Your task to perform on an android device: Open Google Image 0: 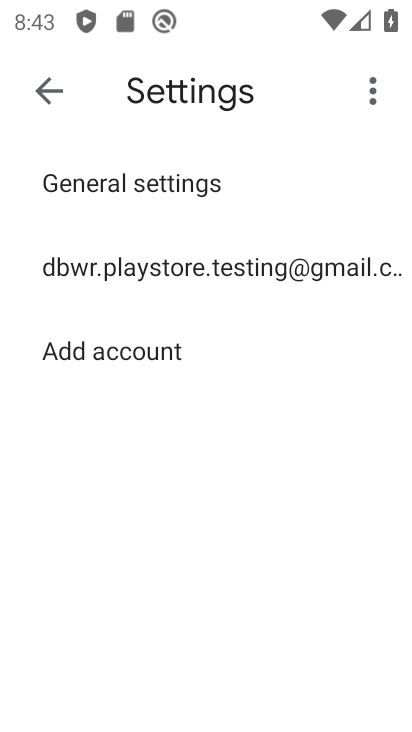
Step 0: press back button
Your task to perform on an android device: Open Google Image 1: 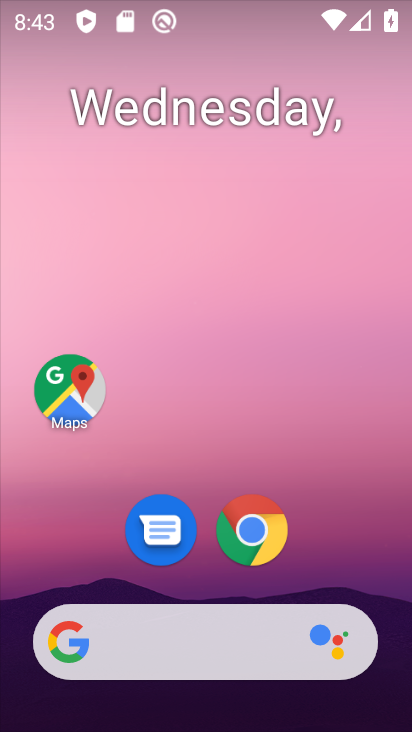
Step 1: drag from (342, 539) to (276, 160)
Your task to perform on an android device: Open Google Image 2: 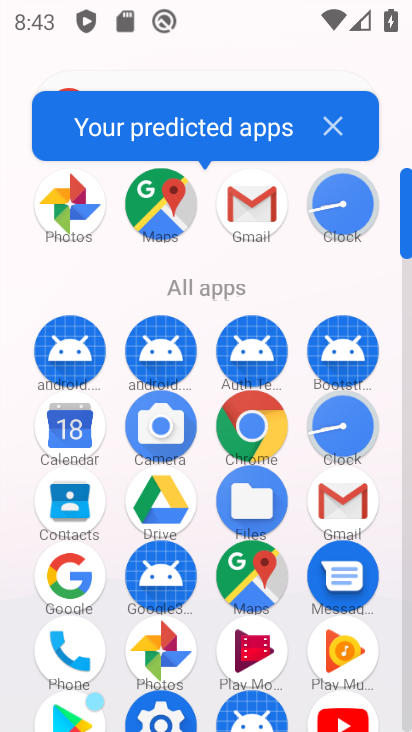
Step 2: click (65, 574)
Your task to perform on an android device: Open Google Image 3: 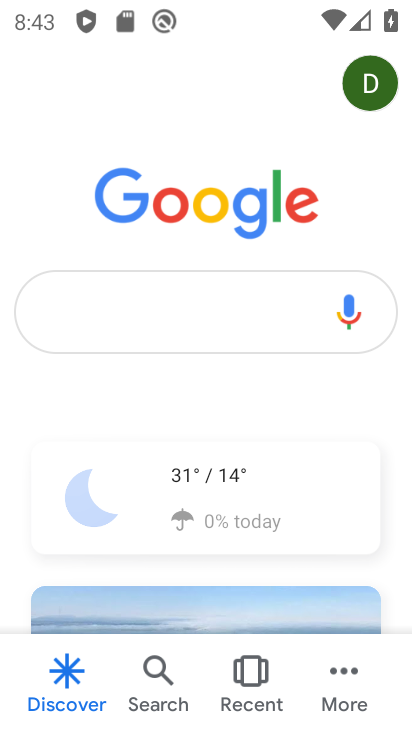
Step 3: task complete